Your task to perform on an android device: refresh tabs in the chrome app Image 0: 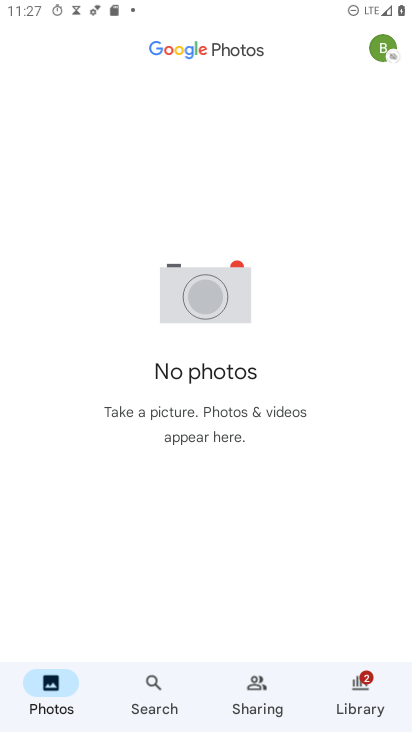
Step 0: press home button
Your task to perform on an android device: refresh tabs in the chrome app Image 1: 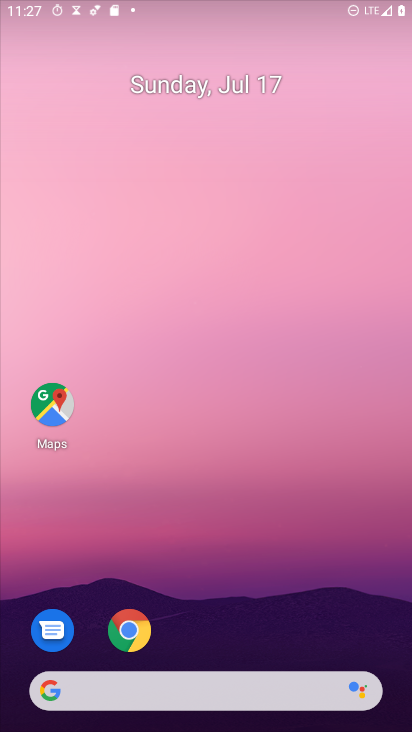
Step 1: drag from (334, 167) to (312, 21)
Your task to perform on an android device: refresh tabs in the chrome app Image 2: 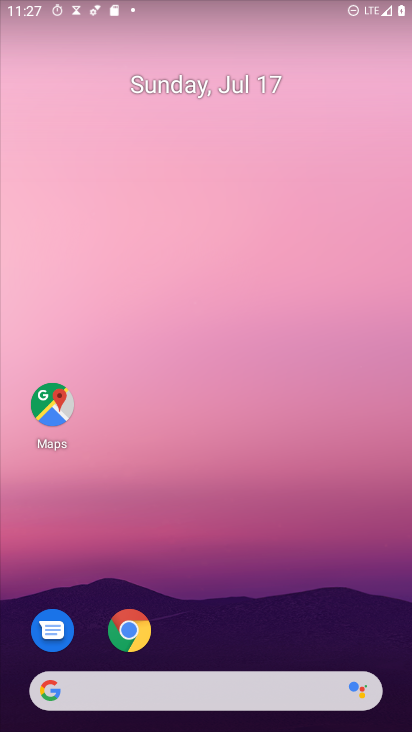
Step 2: drag from (163, 691) to (227, 5)
Your task to perform on an android device: refresh tabs in the chrome app Image 3: 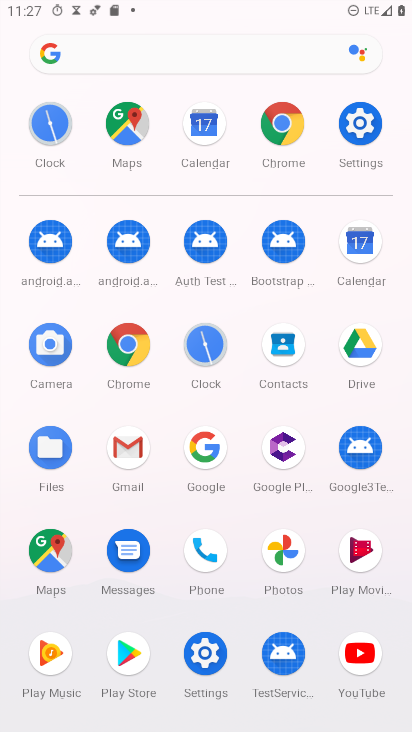
Step 3: click (130, 349)
Your task to perform on an android device: refresh tabs in the chrome app Image 4: 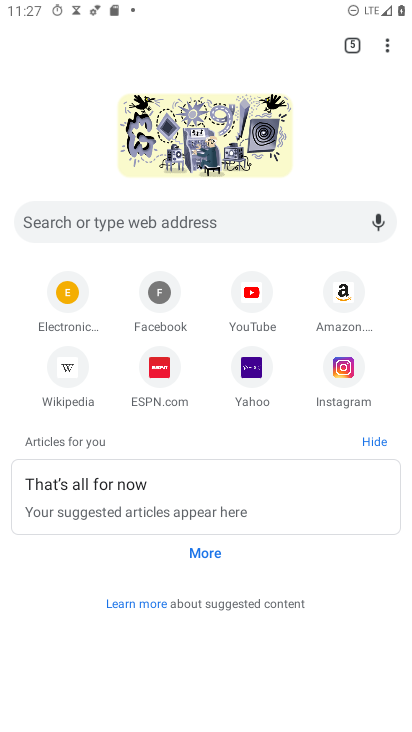
Step 4: click (388, 44)
Your task to perform on an android device: refresh tabs in the chrome app Image 5: 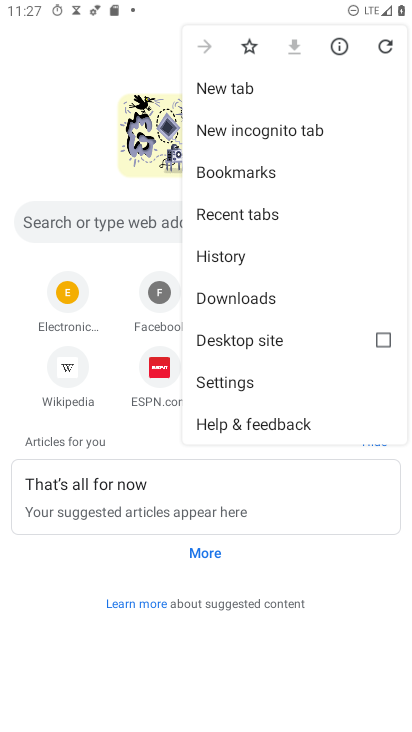
Step 5: click (384, 49)
Your task to perform on an android device: refresh tabs in the chrome app Image 6: 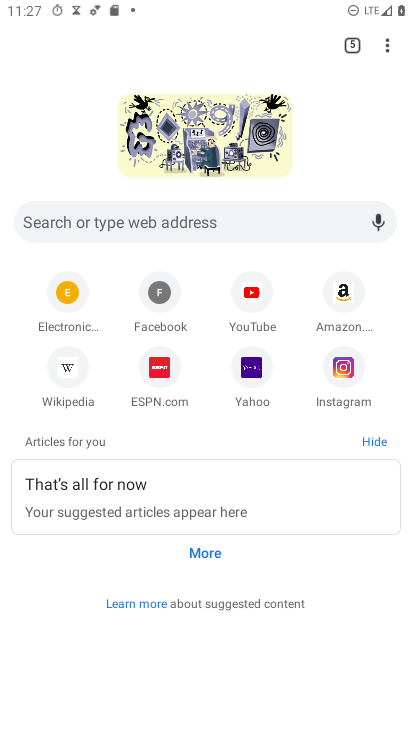
Step 6: task complete